Your task to perform on an android device: Go to Google Image 0: 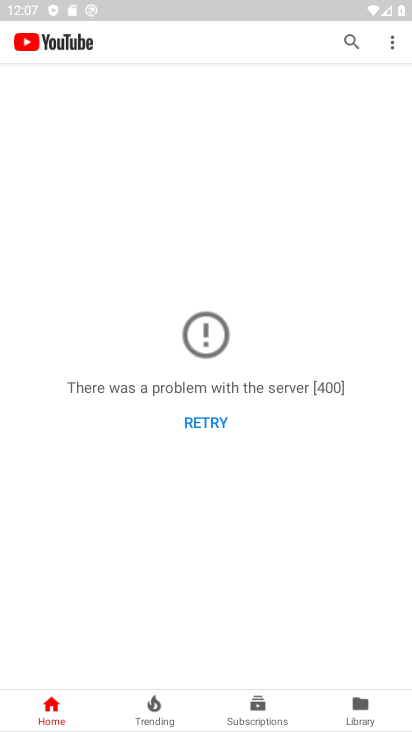
Step 0: press home button
Your task to perform on an android device: Go to Google Image 1: 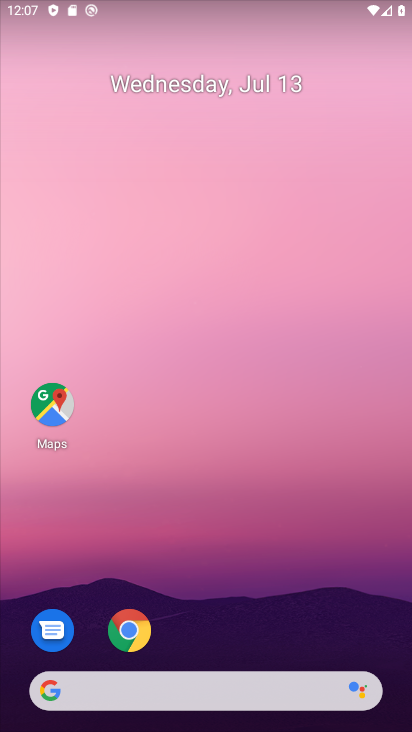
Step 1: drag from (209, 650) to (257, 32)
Your task to perform on an android device: Go to Google Image 2: 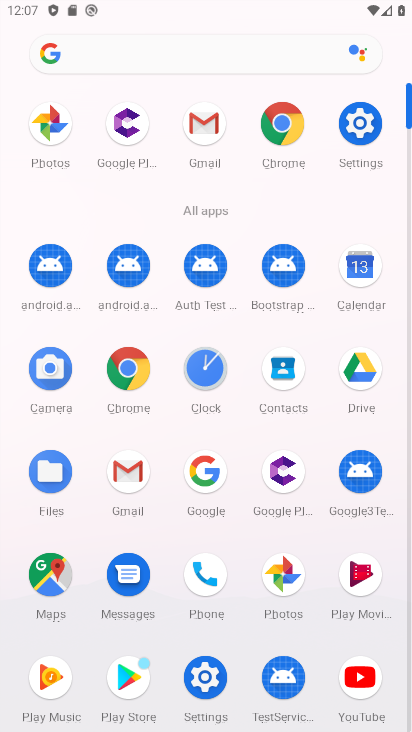
Step 2: click (201, 461)
Your task to perform on an android device: Go to Google Image 3: 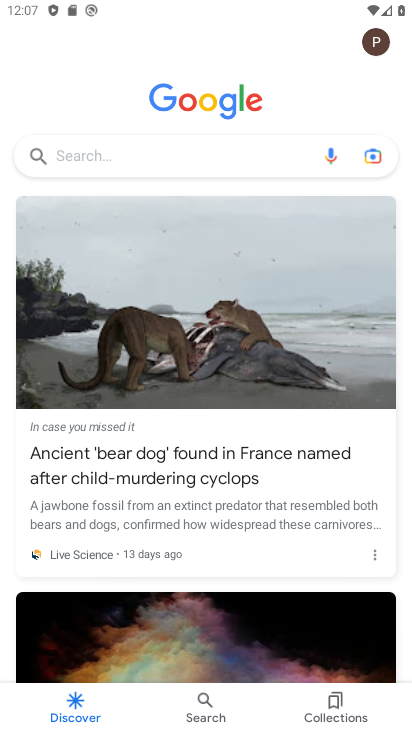
Step 3: task complete